Your task to perform on an android device: open chrome privacy settings Image 0: 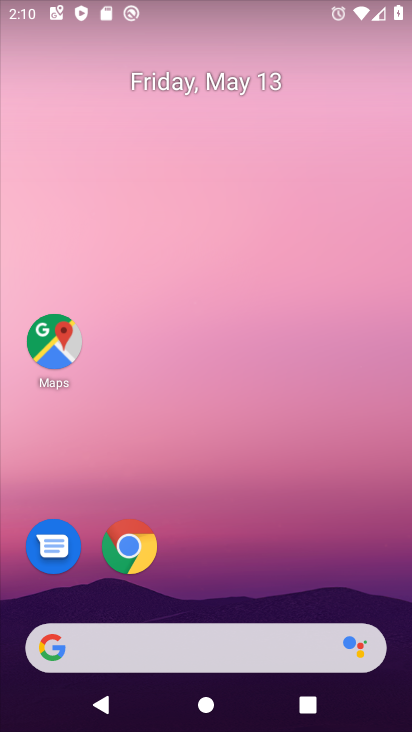
Step 0: drag from (287, 528) to (272, 72)
Your task to perform on an android device: open chrome privacy settings Image 1: 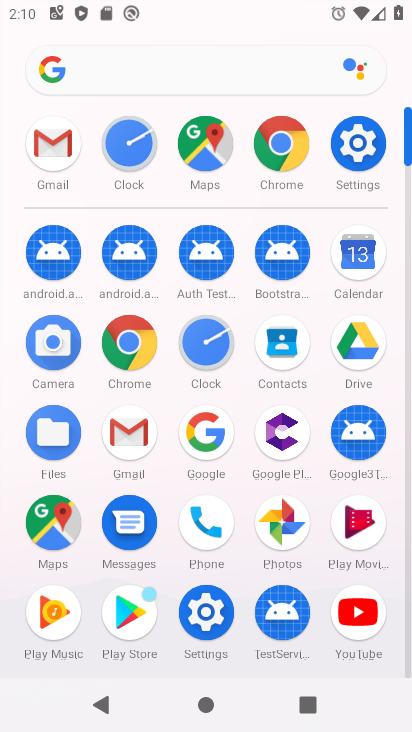
Step 1: click (285, 140)
Your task to perform on an android device: open chrome privacy settings Image 2: 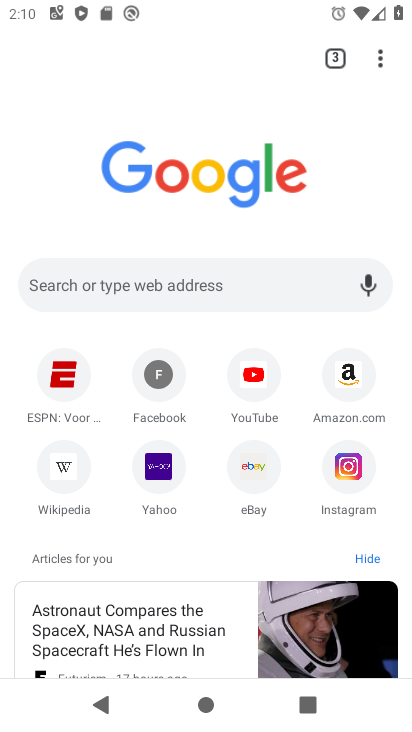
Step 2: drag from (381, 56) to (191, 499)
Your task to perform on an android device: open chrome privacy settings Image 3: 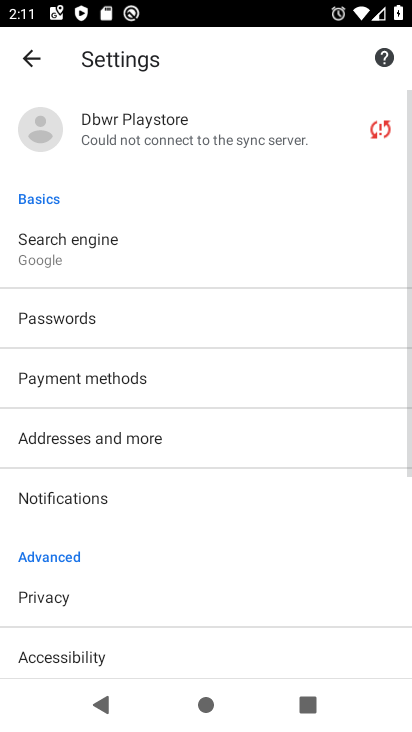
Step 3: drag from (207, 663) to (204, 216)
Your task to perform on an android device: open chrome privacy settings Image 4: 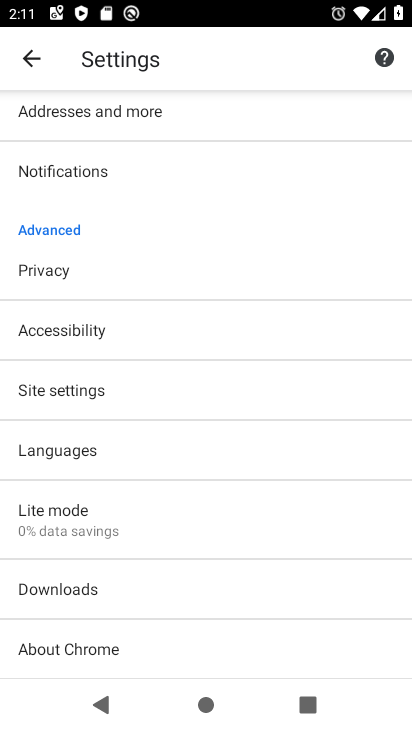
Step 4: click (62, 275)
Your task to perform on an android device: open chrome privacy settings Image 5: 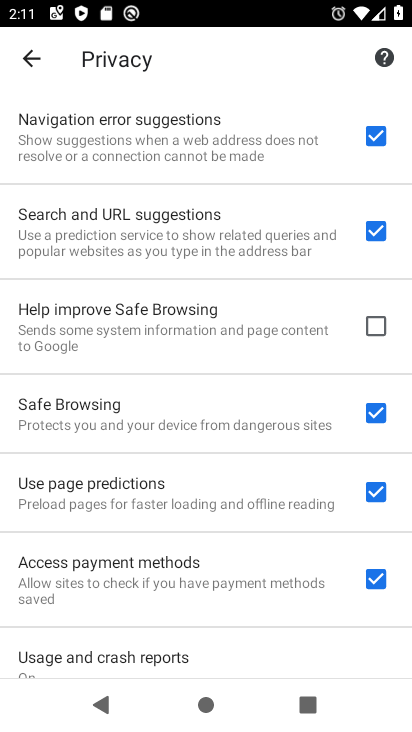
Step 5: task complete